Your task to perform on an android device: turn on airplane mode Image 0: 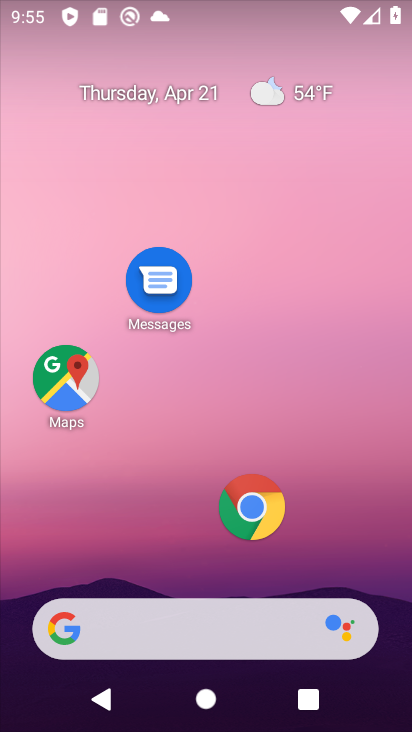
Step 0: drag from (197, 522) to (178, 47)
Your task to perform on an android device: turn on airplane mode Image 1: 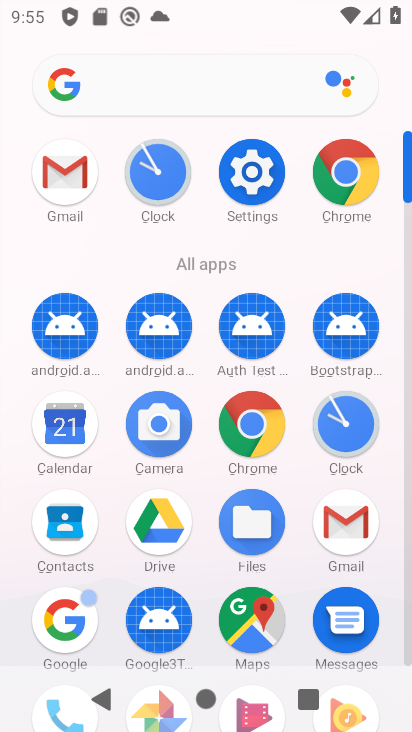
Step 1: click (257, 172)
Your task to perform on an android device: turn on airplane mode Image 2: 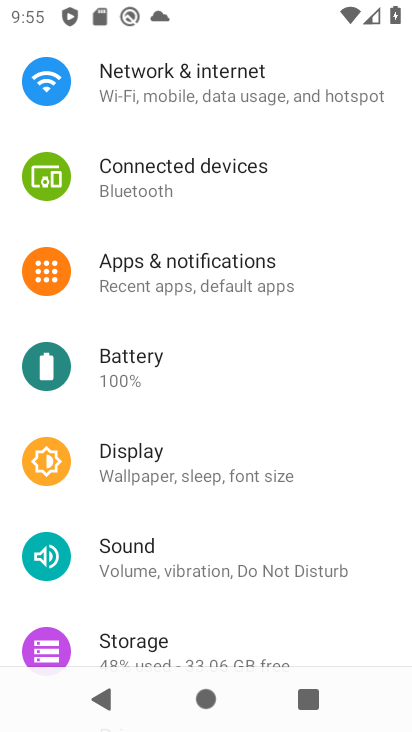
Step 2: drag from (185, 117) to (217, 286)
Your task to perform on an android device: turn on airplane mode Image 3: 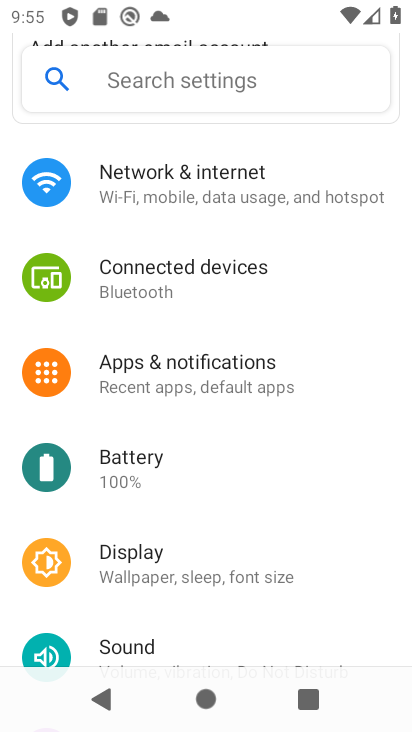
Step 3: click (175, 181)
Your task to perform on an android device: turn on airplane mode Image 4: 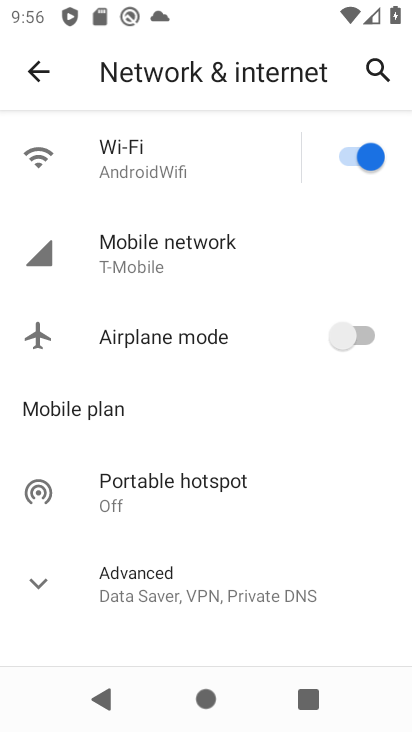
Step 4: click (355, 338)
Your task to perform on an android device: turn on airplane mode Image 5: 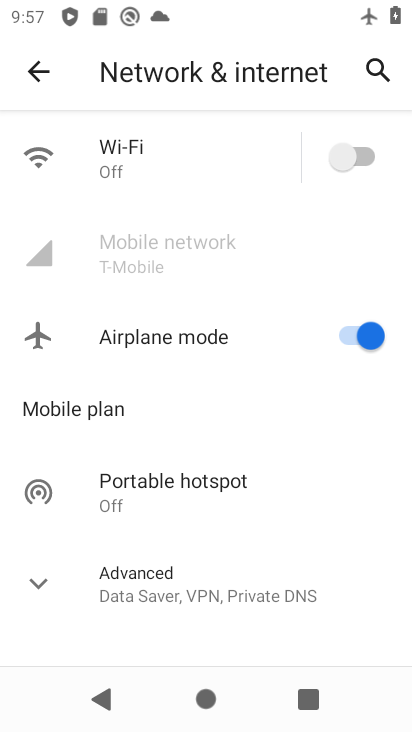
Step 5: task complete